Your task to perform on an android device: move a message to another label in the gmail app Image 0: 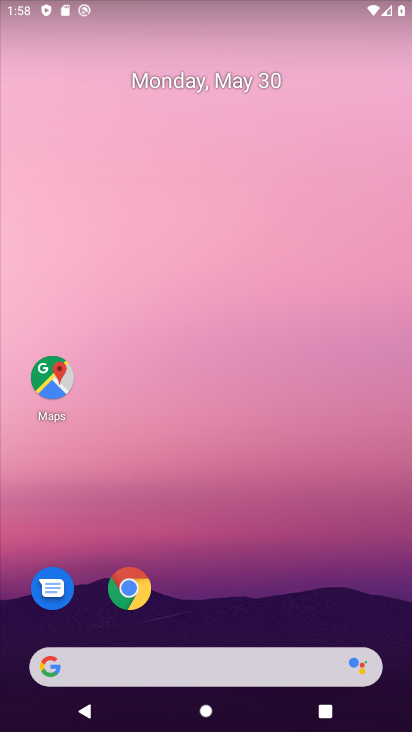
Step 0: drag from (248, 605) to (277, 255)
Your task to perform on an android device: move a message to another label in the gmail app Image 1: 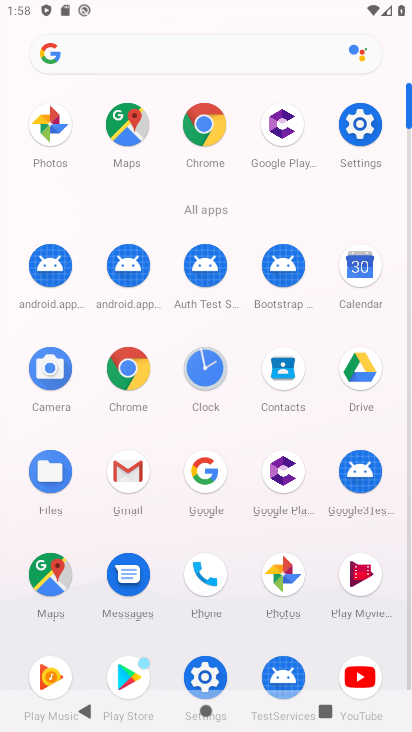
Step 1: click (136, 472)
Your task to perform on an android device: move a message to another label in the gmail app Image 2: 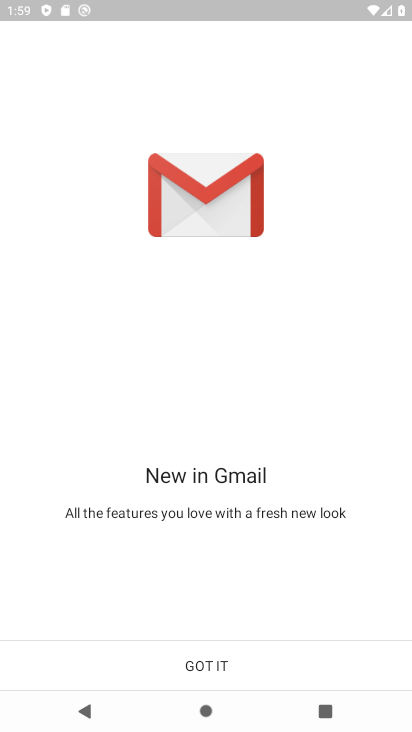
Step 2: click (190, 646)
Your task to perform on an android device: move a message to another label in the gmail app Image 3: 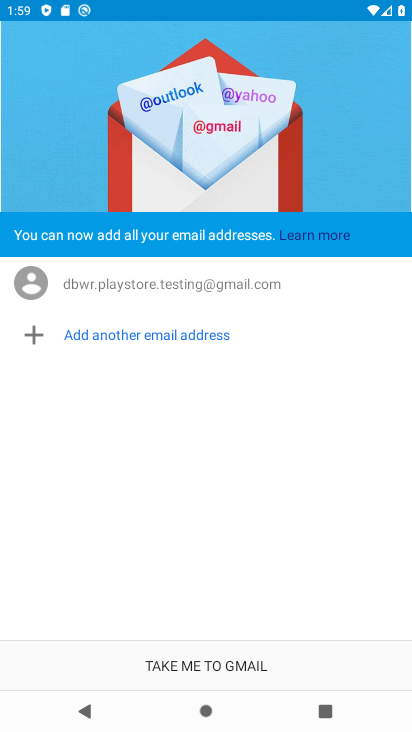
Step 3: click (205, 654)
Your task to perform on an android device: move a message to another label in the gmail app Image 4: 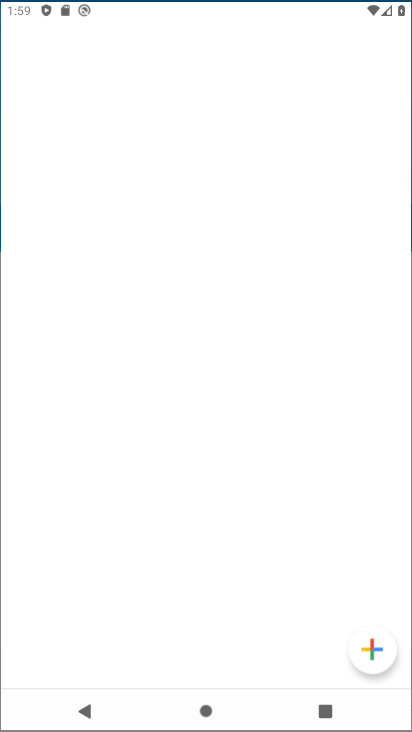
Step 4: click (205, 654)
Your task to perform on an android device: move a message to another label in the gmail app Image 5: 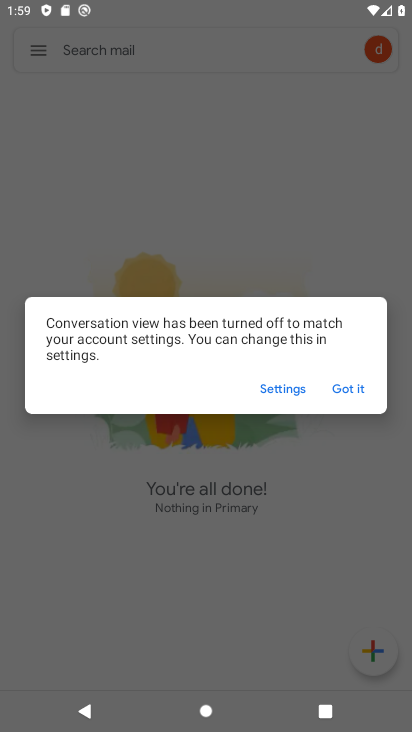
Step 5: click (332, 392)
Your task to perform on an android device: move a message to another label in the gmail app Image 6: 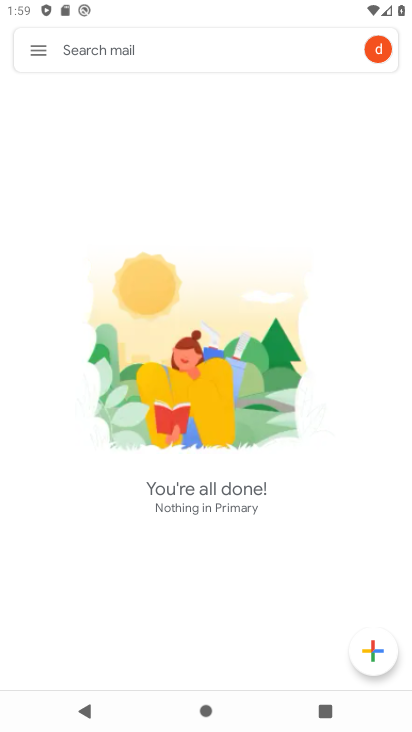
Step 6: click (36, 57)
Your task to perform on an android device: move a message to another label in the gmail app Image 7: 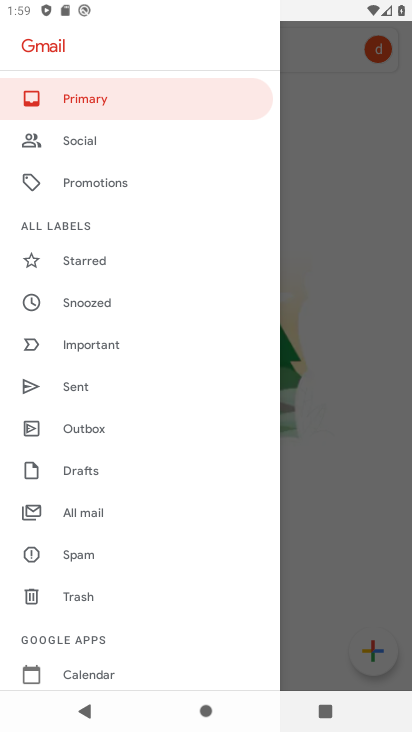
Step 7: click (94, 519)
Your task to perform on an android device: move a message to another label in the gmail app Image 8: 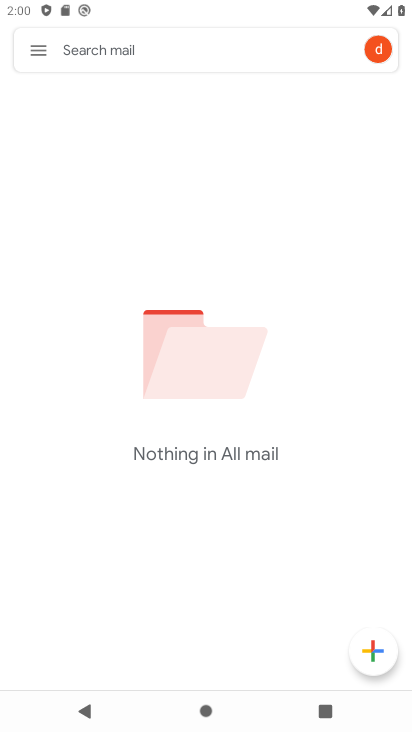
Step 8: task complete